Your task to perform on an android device: turn off picture-in-picture Image 0: 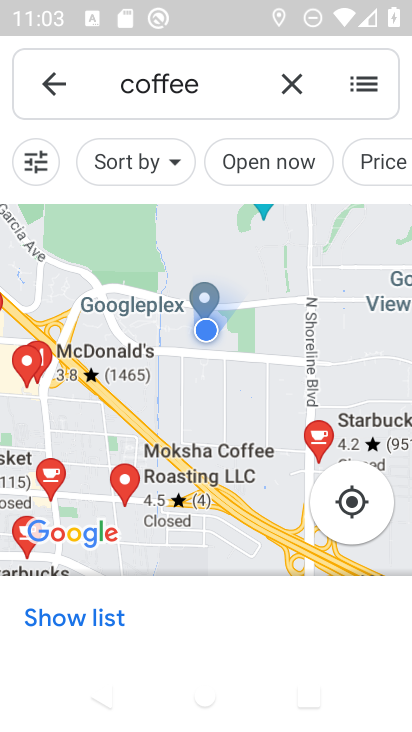
Step 0: press home button
Your task to perform on an android device: turn off picture-in-picture Image 1: 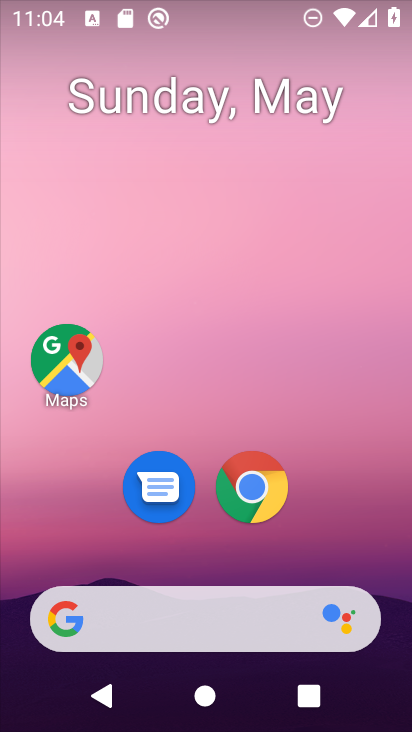
Step 1: drag from (226, 617) to (395, 89)
Your task to perform on an android device: turn off picture-in-picture Image 2: 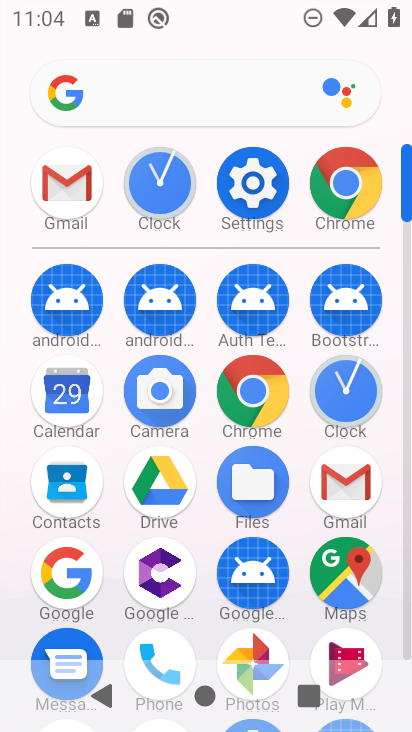
Step 2: click (251, 189)
Your task to perform on an android device: turn off picture-in-picture Image 3: 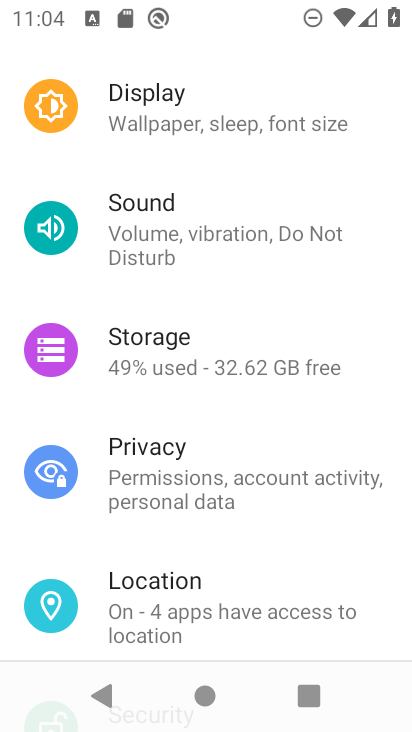
Step 3: drag from (231, 177) to (216, 716)
Your task to perform on an android device: turn off picture-in-picture Image 4: 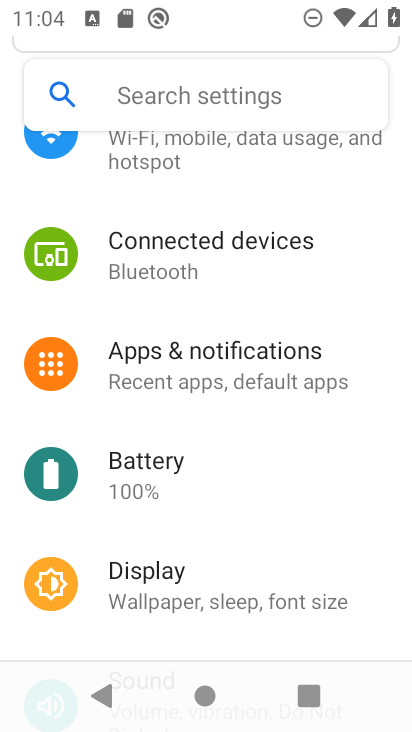
Step 4: click (222, 375)
Your task to perform on an android device: turn off picture-in-picture Image 5: 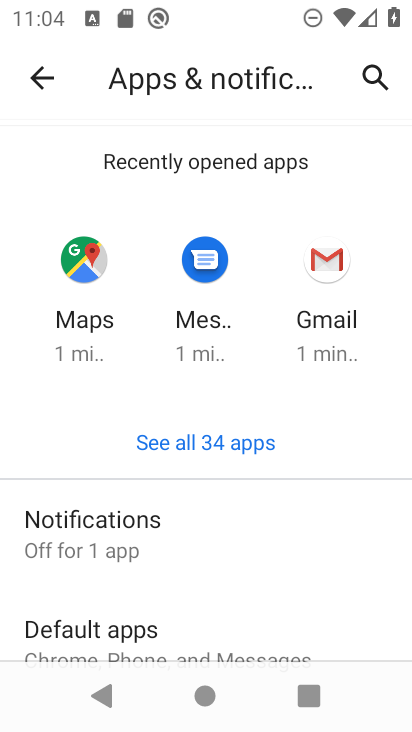
Step 5: drag from (207, 532) to (355, 28)
Your task to perform on an android device: turn off picture-in-picture Image 6: 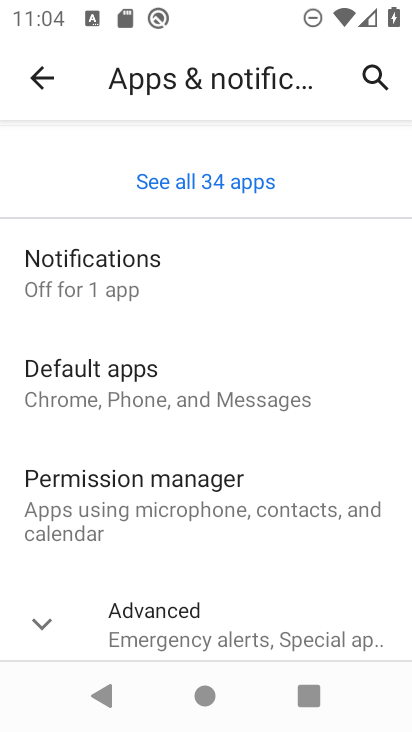
Step 6: drag from (180, 594) to (275, 318)
Your task to perform on an android device: turn off picture-in-picture Image 7: 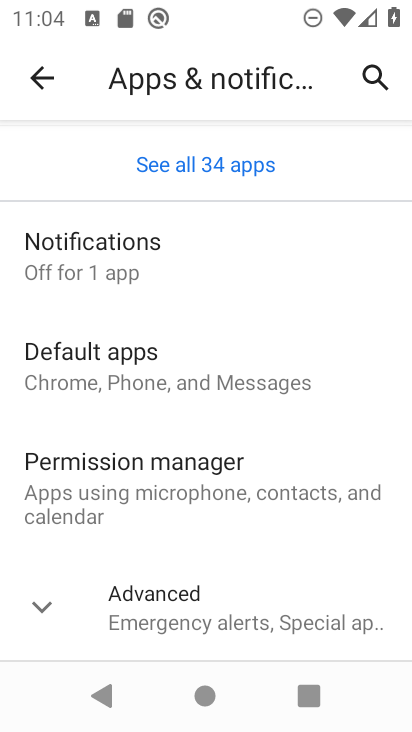
Step 7: click (235, 617)
Your task to perform on an android device: turn off picture-in-picture Image 8: 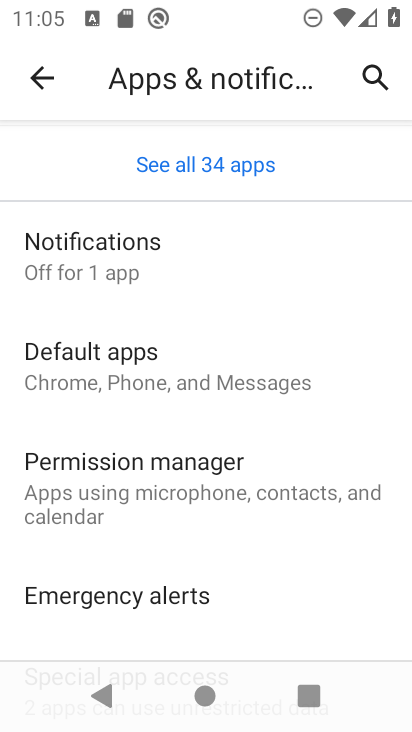
Step 8: drag from (130, 580) to (384, 191)
Your task to perform on an android device: turn off picture-in-picture Image 9: 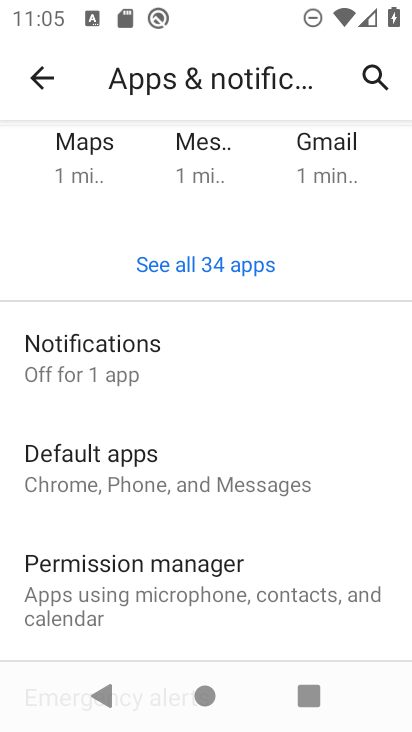
Step 9: drag from (150, 581) to (305, 5)
Your task to perform on an android device: turn off picture-in-picture Image 10: 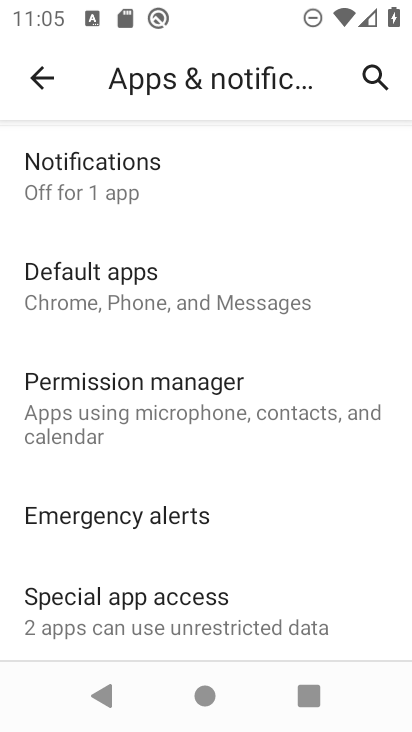
Step 10: click (201, 611)
Your task to perform on an android device: turn off picture-in-picture Image 11: 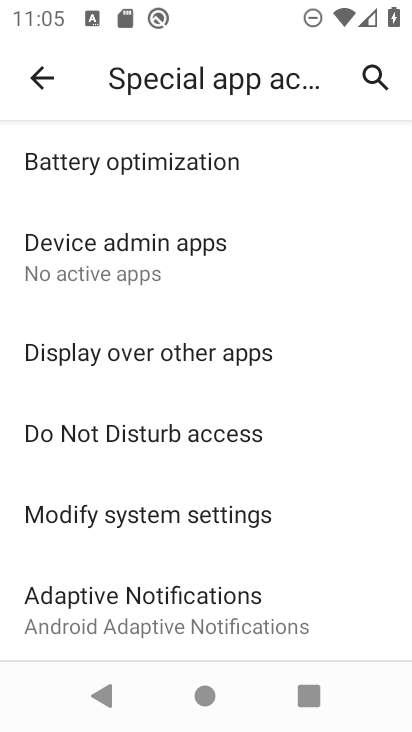
Step 11: drag from (158, 495) to (273, 239)
Your task to perform on an android device: turn off picture-in-picture Image 12: 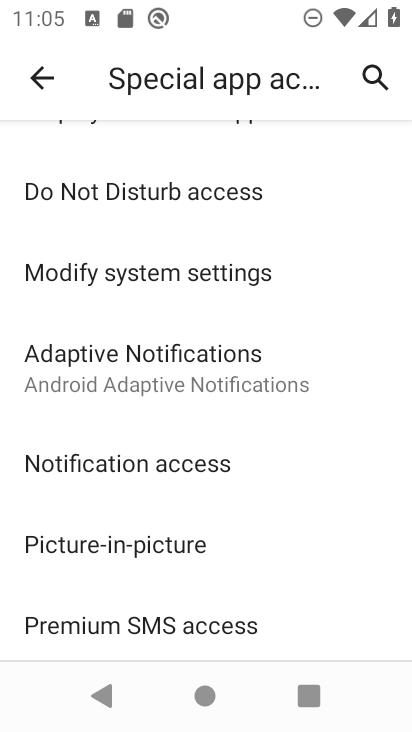
Step 12: click (169, 566)
Your task to perform on an android device: turn off picture-in-picture Image 13: 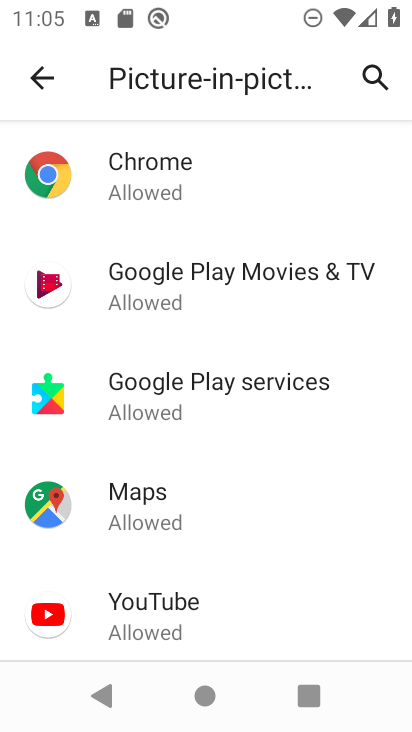
Step 13: click (177, 177)
Your task to perform on an android device: turn off picture-in-picture Image 14: 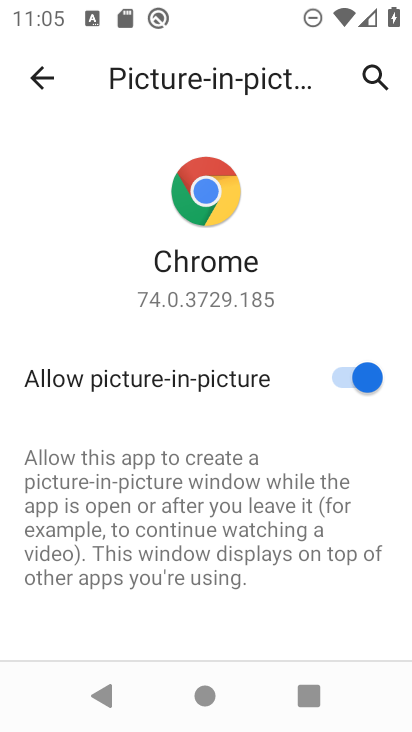
Step 14: click (335, 379)
Your task to perform on an android device: turn off picture-in-picture Image 15: 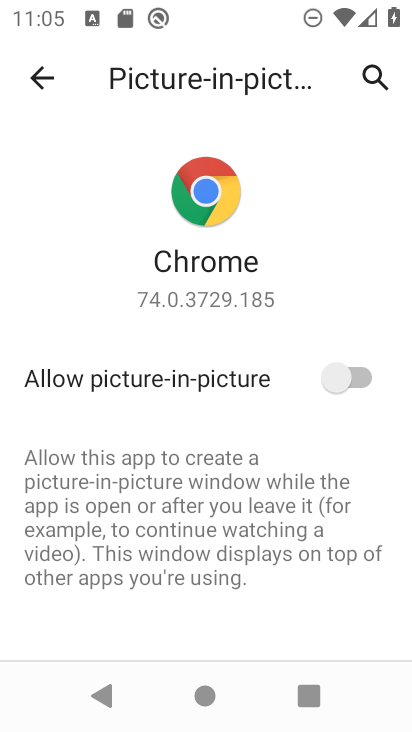
Step 15: task complete